Your task to perform on an android device: open app "Gmail" Image 0: 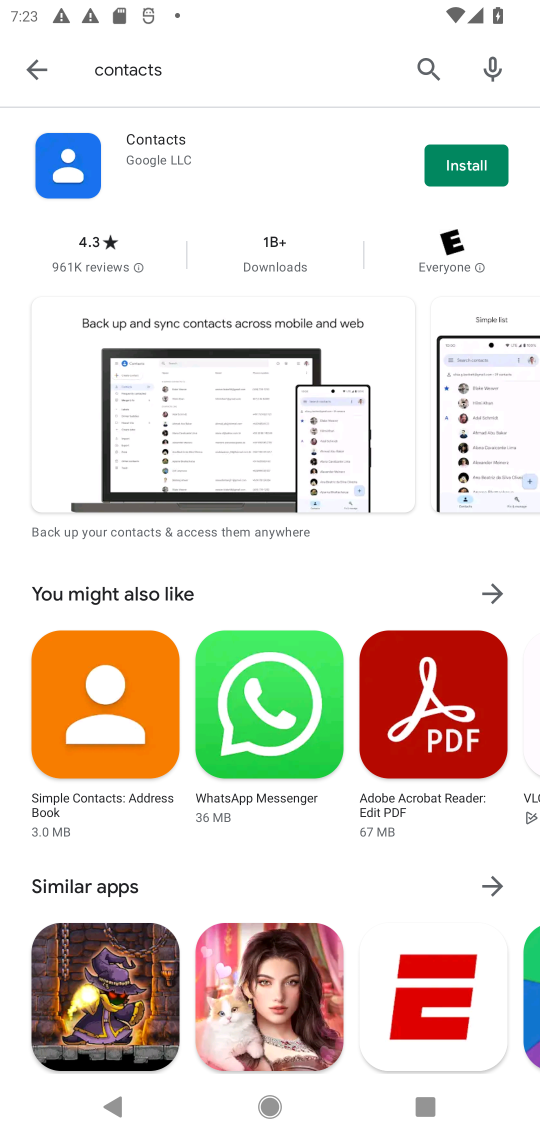
Step 0: press home button
Your task to perform on an android device: open app "Gmail" Image 1: 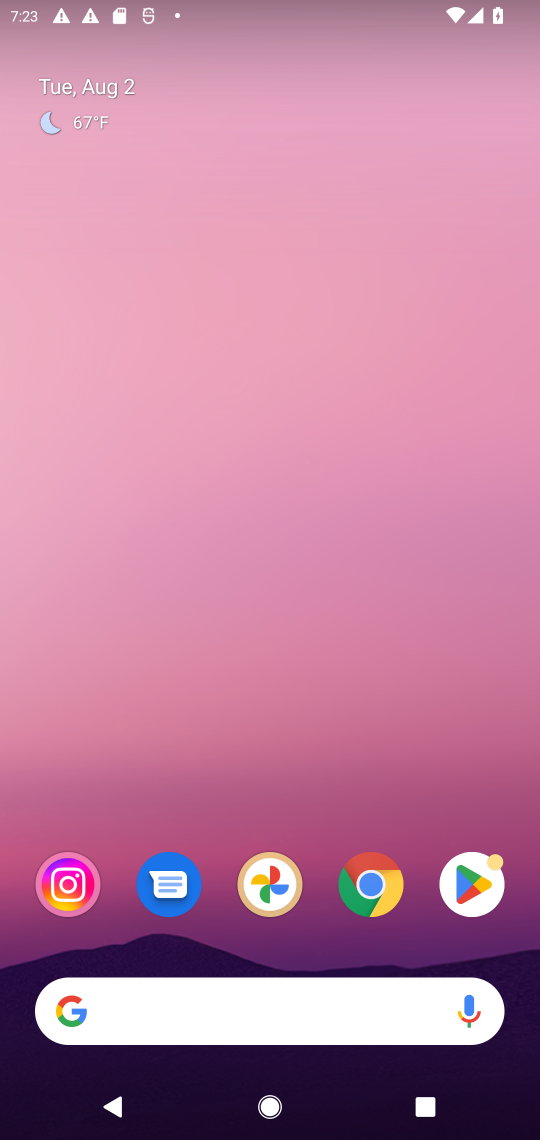
Step 1: click (478, 860)
Your task to perform on an android device: open app "Gmail" Image 2: 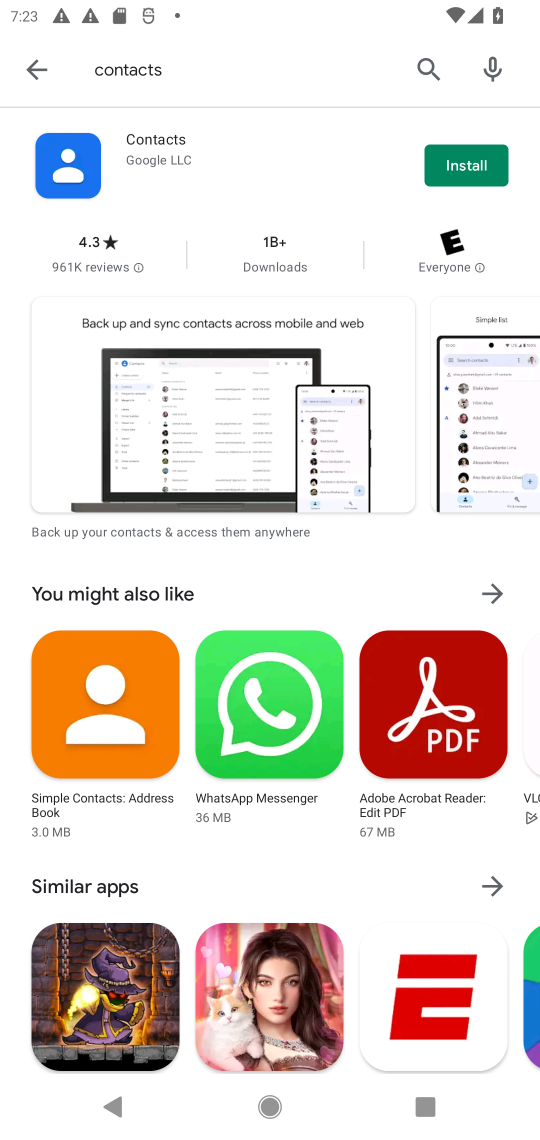
Step 2: click (423, 67)
Your task to perform on an android device: open app "Gmail" Image 3: 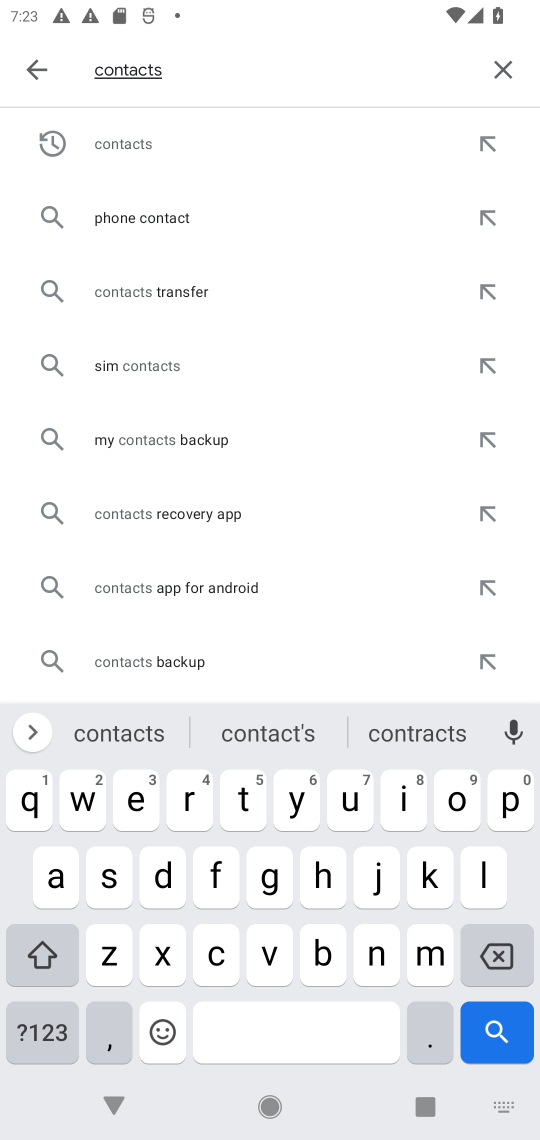
Step 3: click (508, 66)
Your task to perform on an android device: open app "Gmail" Image 4: 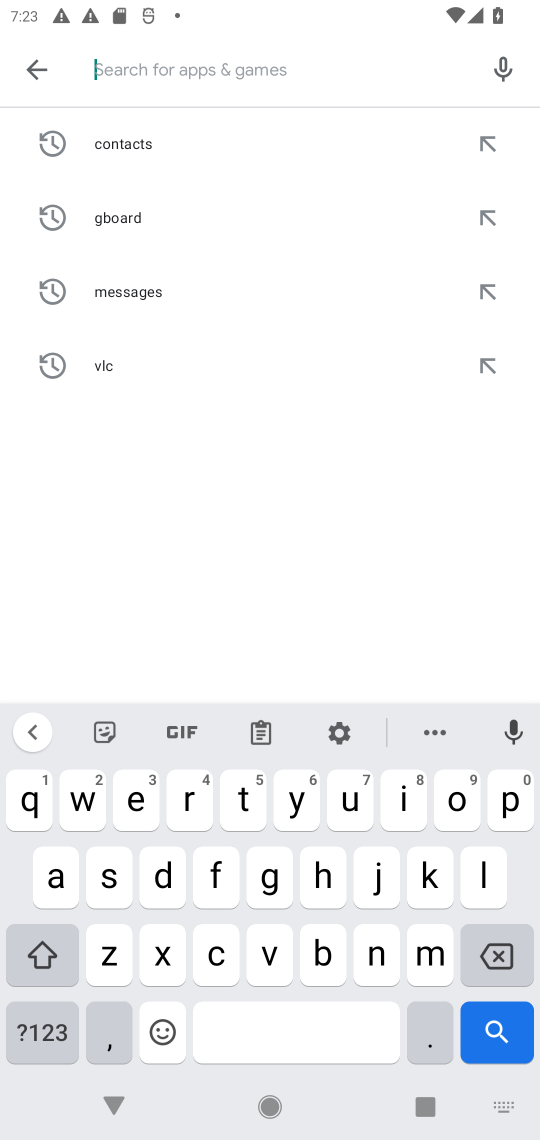
Step 4: click (268, 870)
Your task to perform on an android device: open app "Gmail" Image 5: 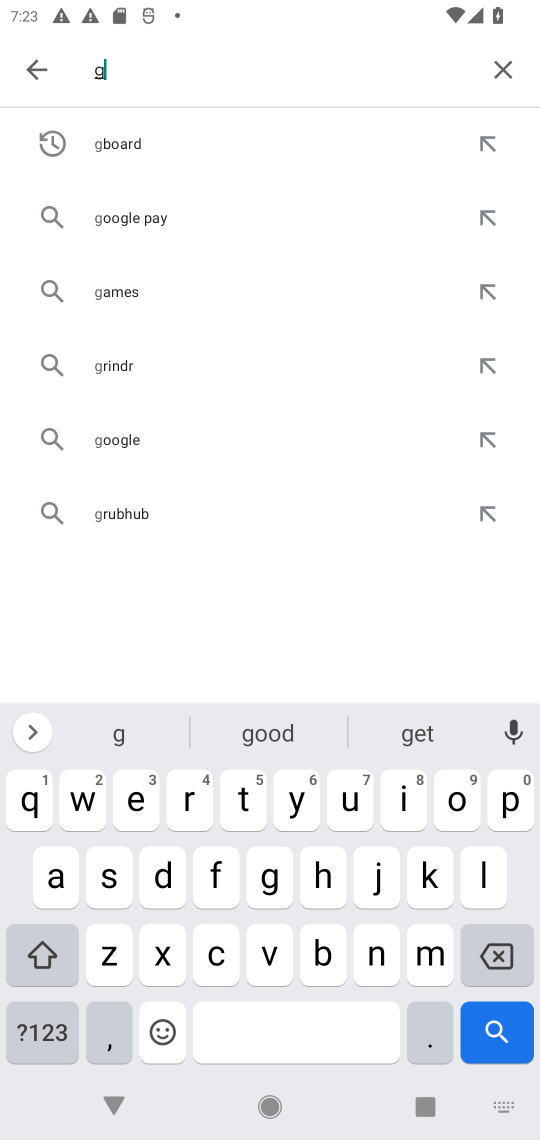
Step 5: click (427, 961)
Your task to perform on an android device: open app "Gmail" Image 6: 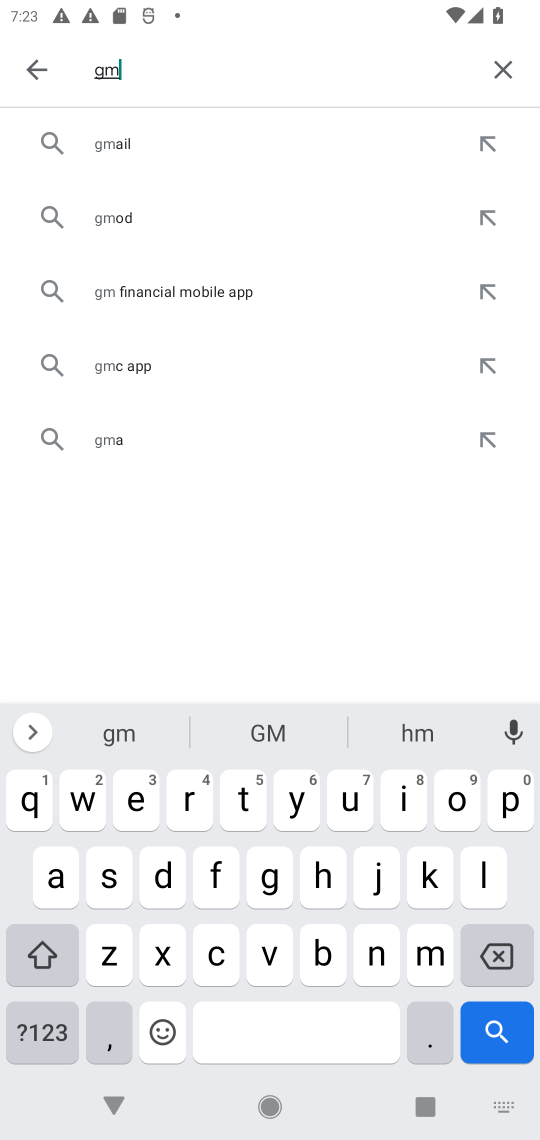
Step 6: click (117, 144)
Your task to perform on an android device: open app "Gmail" Image 7: 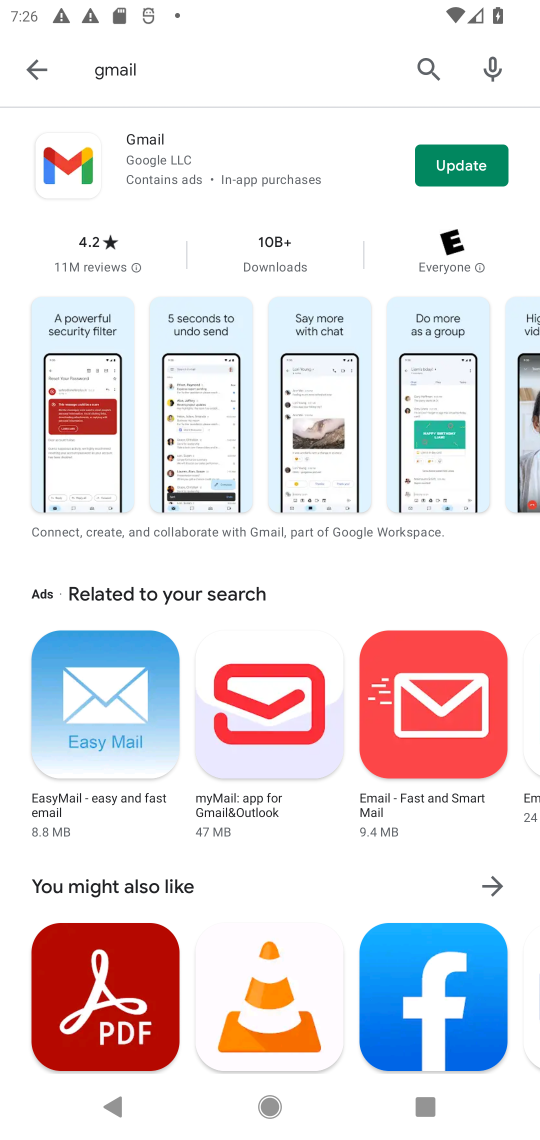
Step 7: task complete